Your task to perform on an android device: turn off improve location accuracy Image 0: 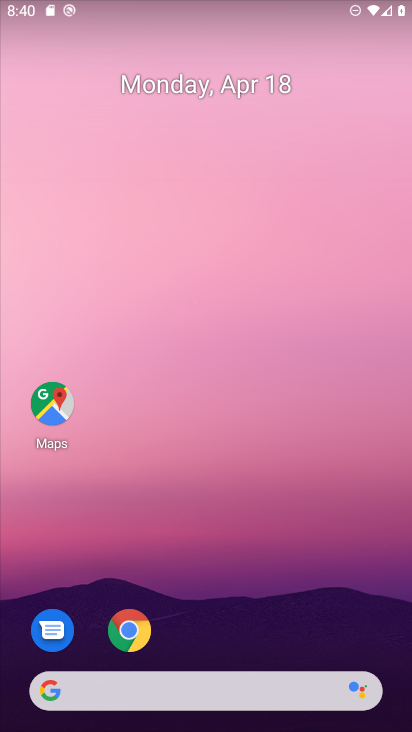
Step 0: drag from (259, 633) to (408, 191)
Your task to perform on an android device: turn off improve location accuracy Image 1: 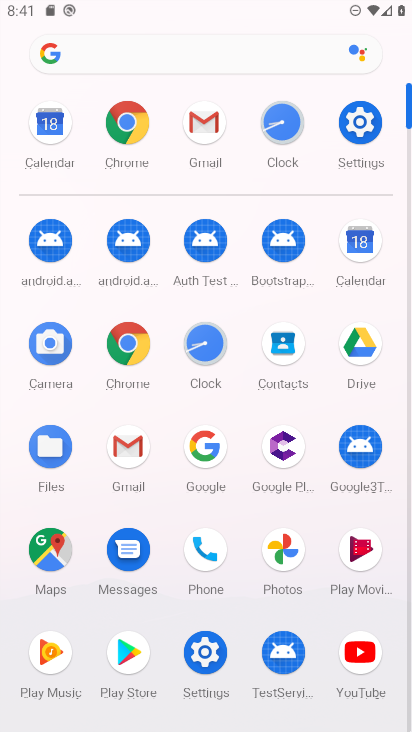
Step 1: click (213, 663)
Your task to perform on an android device: turn off improve location accuracy Image 2: 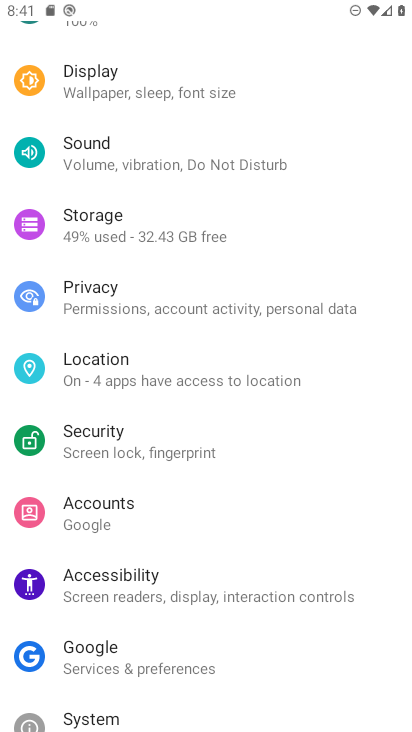
Step 2: click (134, 377)
Your task to perform on an android device: turn off improve location accuracy Image 3: 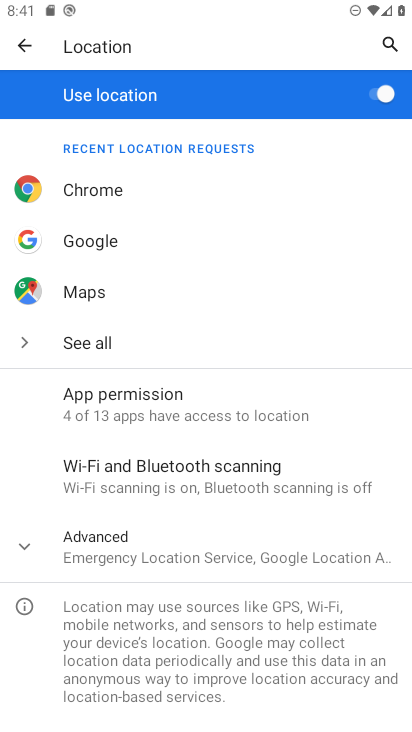
Step 3: click (145, 540)
Your task to perform on an android device: turn off improve location accuracy Image 4: 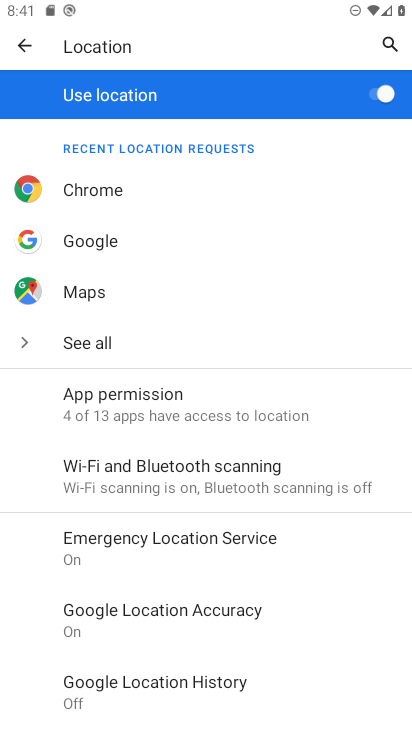
Step 4: click (214, 615)
Your task to perform on an android device: turn off improve location accuracy Image 5: 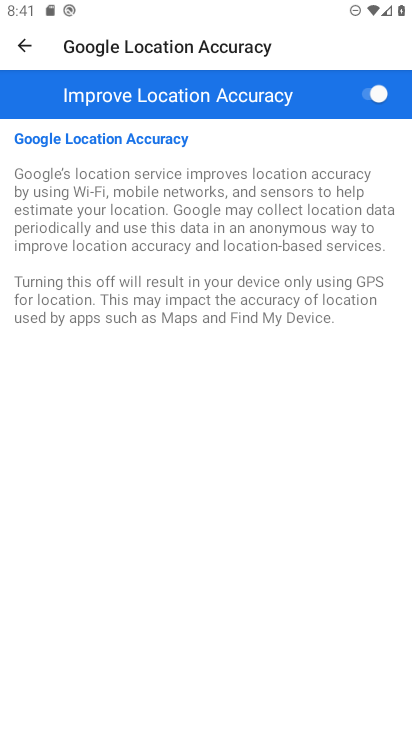
Step 5: click (365, 93)
Your task to perform on an android device: turn off improve location accuracy Image 6: 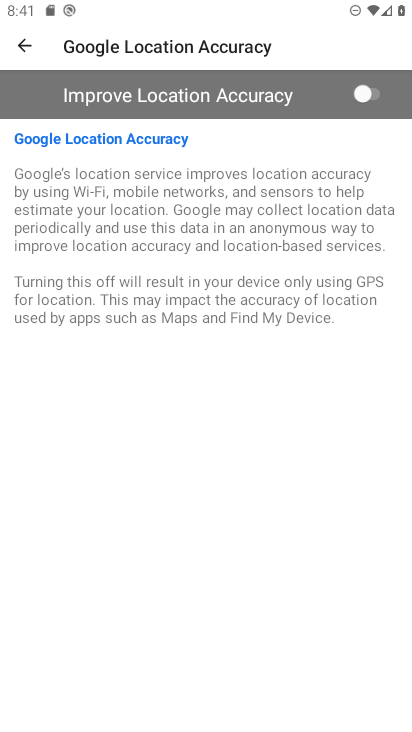
Step 6: task complete